Your task to perform on an android device: Add alienware area 51 to the cart on walmart Image 0: 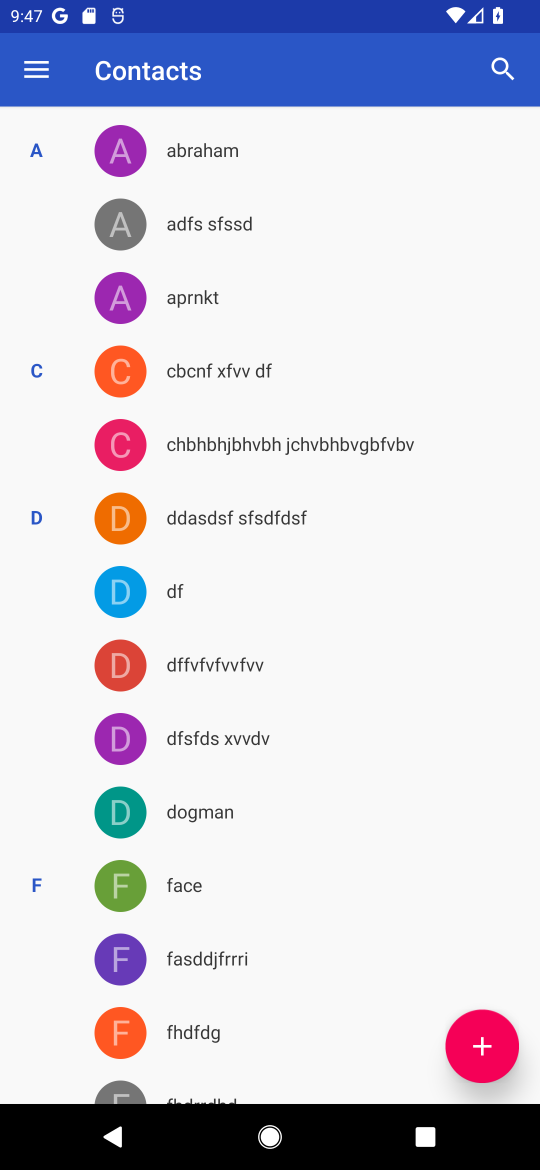
Step 0: press home button
Your task to perform on an android device: Add alienware area 51 to the cart on walmart Image 1: 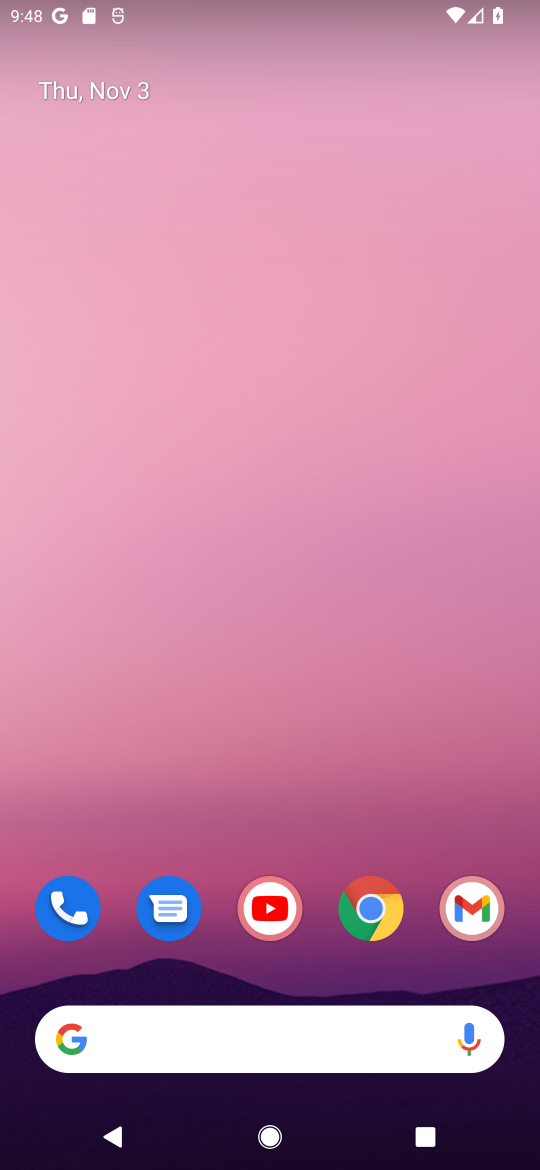
Step 1: click (375, 887)
Your task to perform on an android device: Add alienware area 51 to the cart on walmart Image 2: 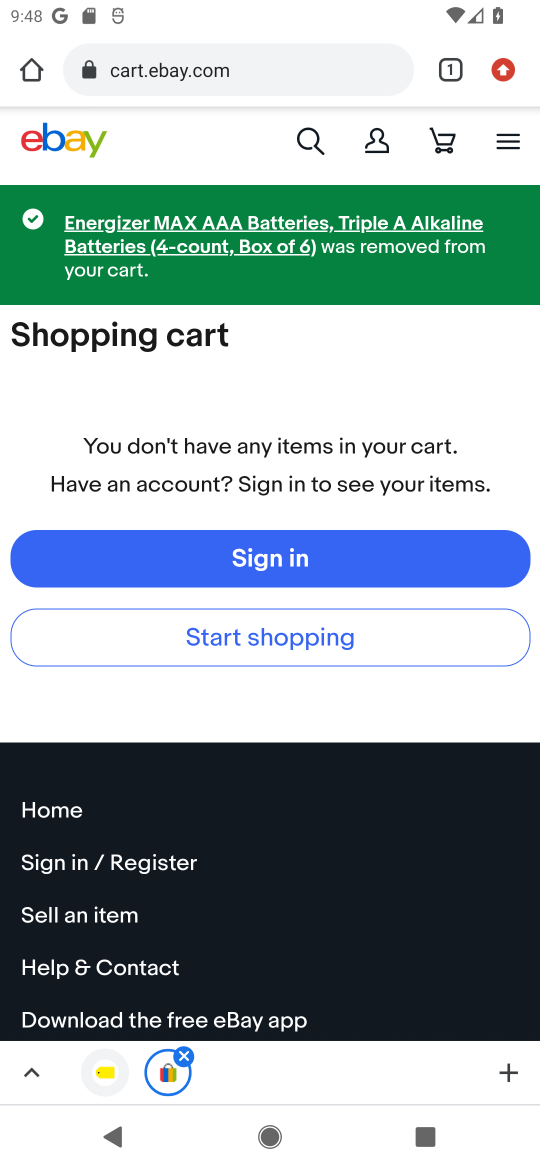
Step 2: click (305, 56)
Your task to perform on an android device: Add alienware area 51 to the cart on walmart Image 3: 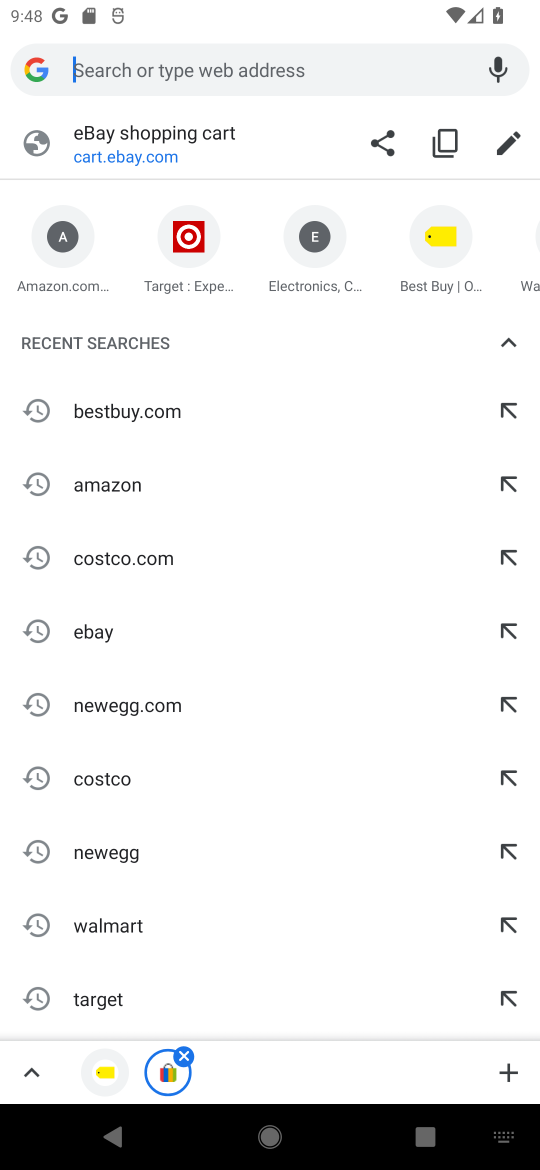
Step 3: click (116, 925)
Your task to perform on an android device: Add alienware area 51 to the cart on walmart Image 4: 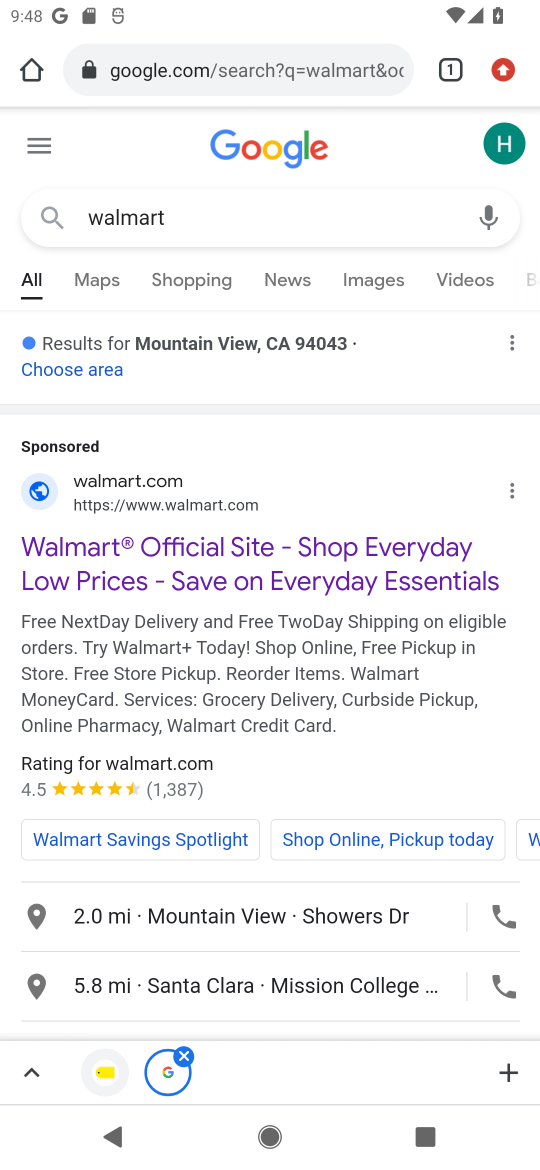
Step 4: click (163, 504)
Your task to perform on an android device: Add alienware area 51 to the cart on walmart Image 5: 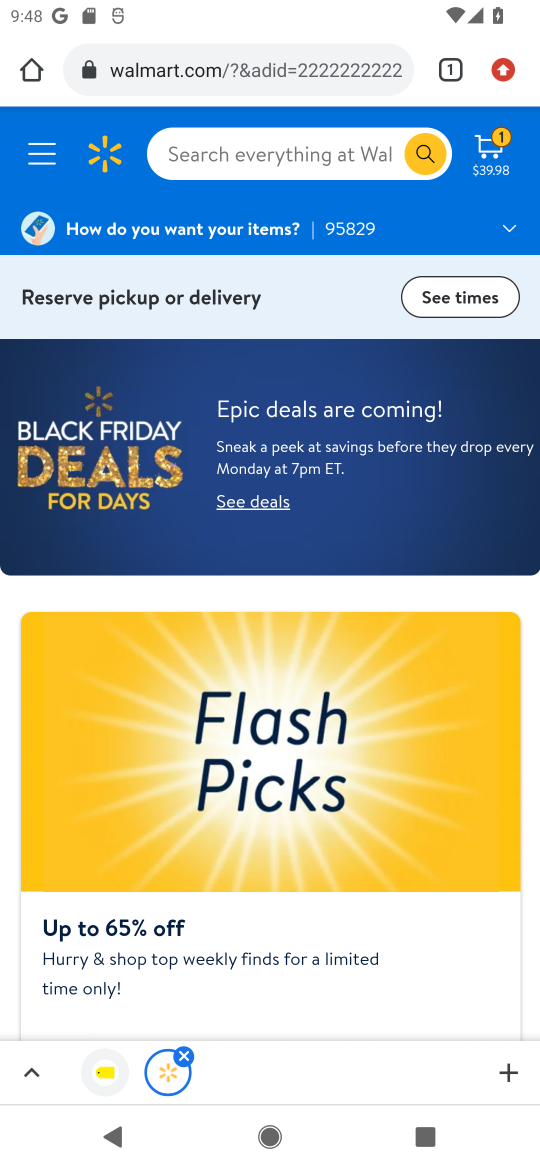
Step 5: click (343, 152)
Your task to perform on an android device: Add alienware area 51 to the cart on walmart Image 6: 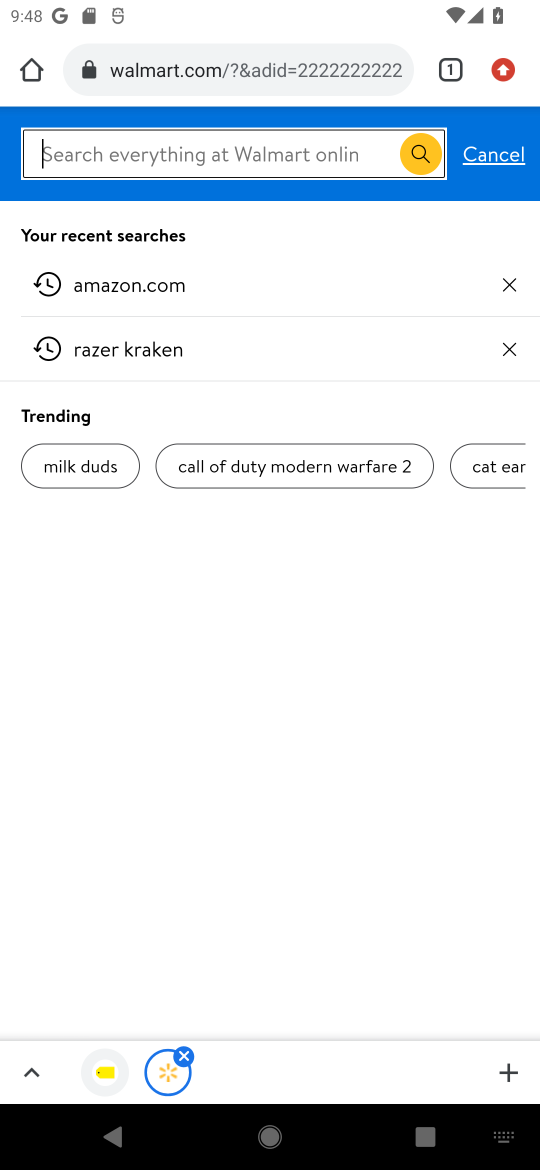
Step 6: type "alienware area 51 "
Your task to perform on an android device: Add alienware area 51 to the cart on walmart Image 7: 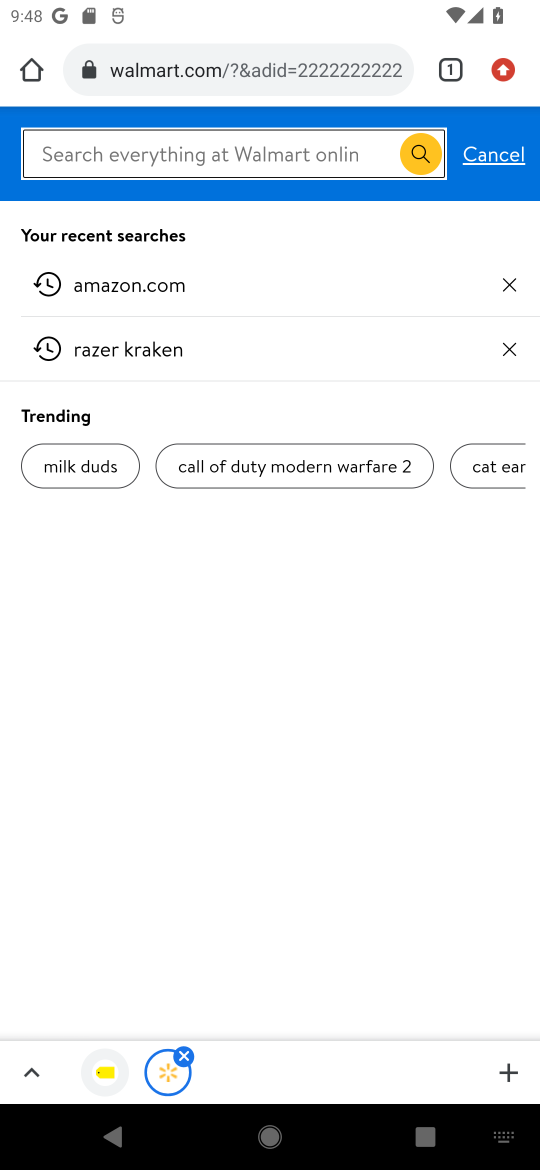
Step 7: press enter
Your task to perform on an android device: Add alienware area 51 to the cart on walmart Image 8: 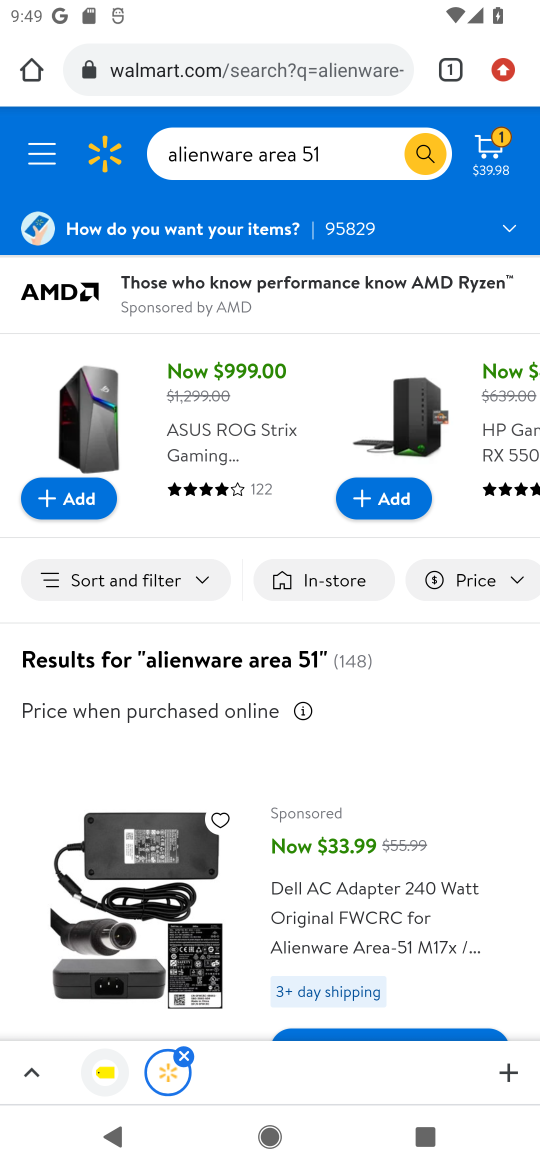
Step 8: drag from (468, 834) to (420, 568)
Your task to perform on an android device: Add alienware area 51 to the cart on walmart Image 9: 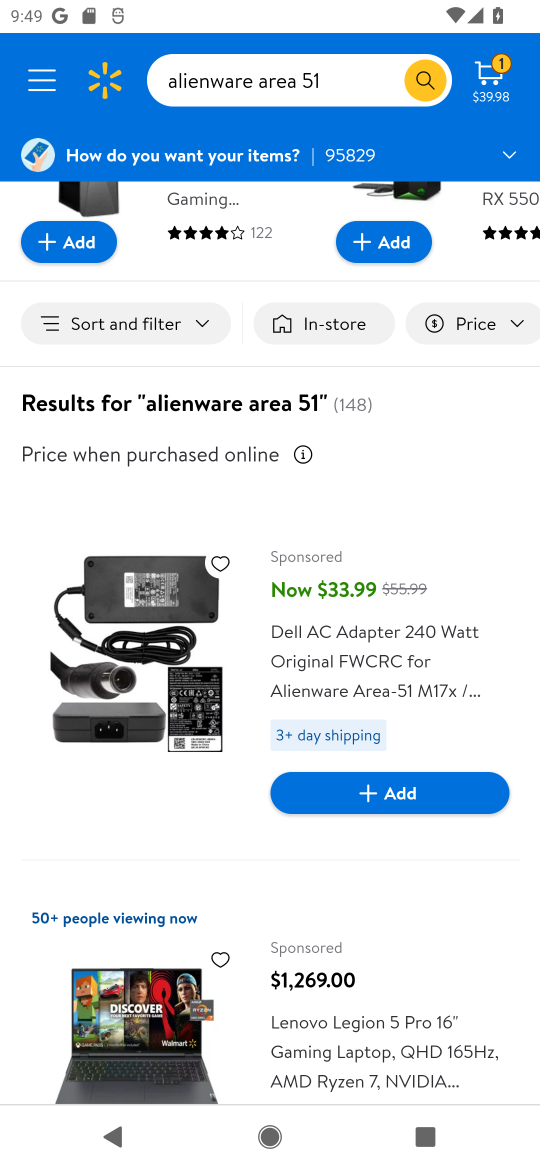
Step 9: click (136, 659)
Your task to perform on an android device: Add alienware area 51 to the cart on walmart Image 10: 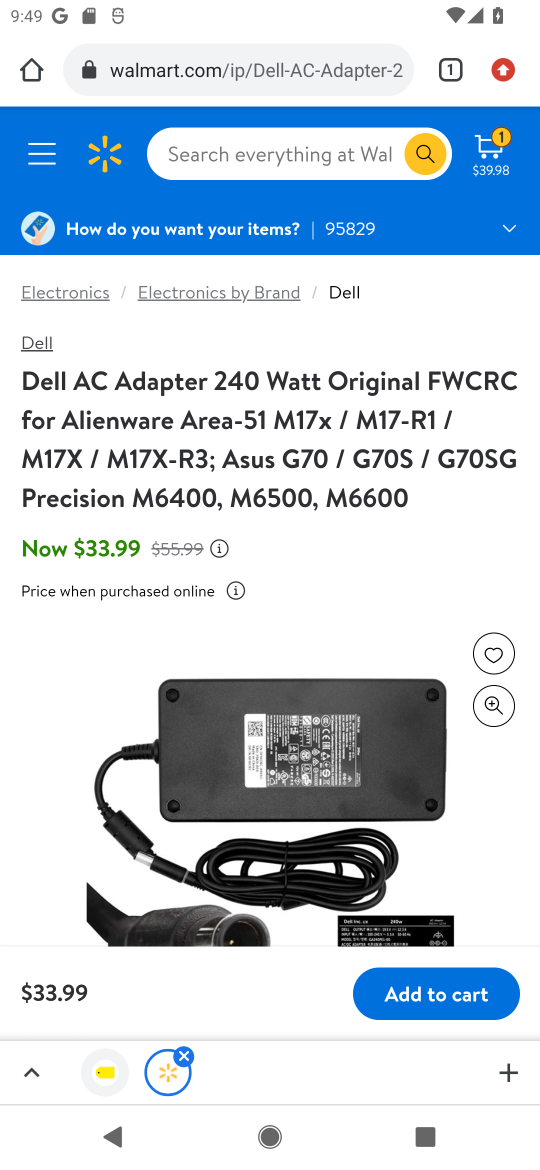
Step 10: click (448, 1000)
Your task to perform on an android device: Add alienware area 51 to the cart on walmart Image 11: 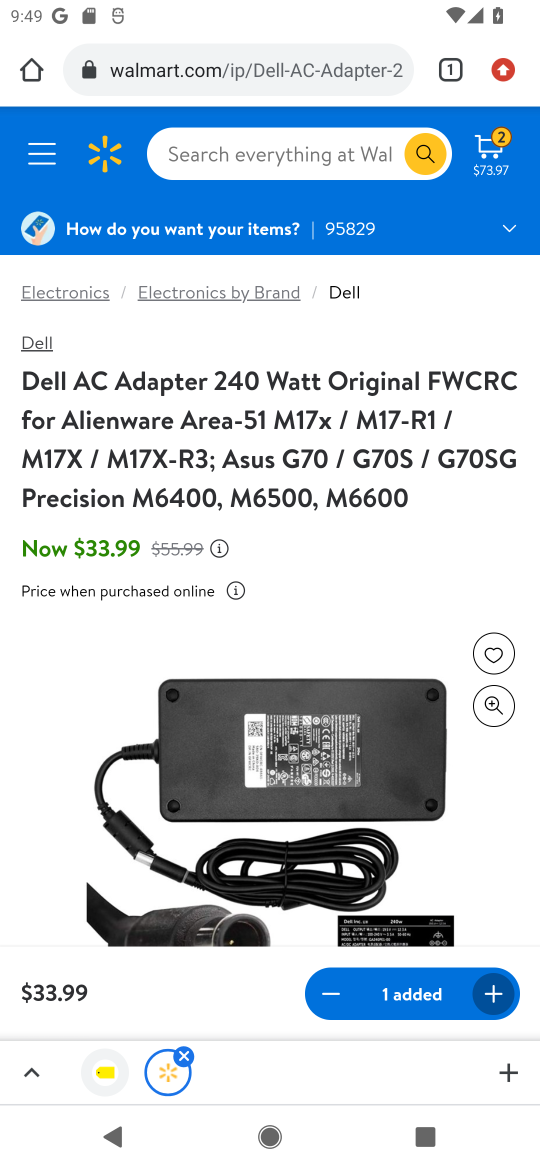
Step 11: task complete